Your task to perform on an android device: refresh tabs in the chrome app Image 0: 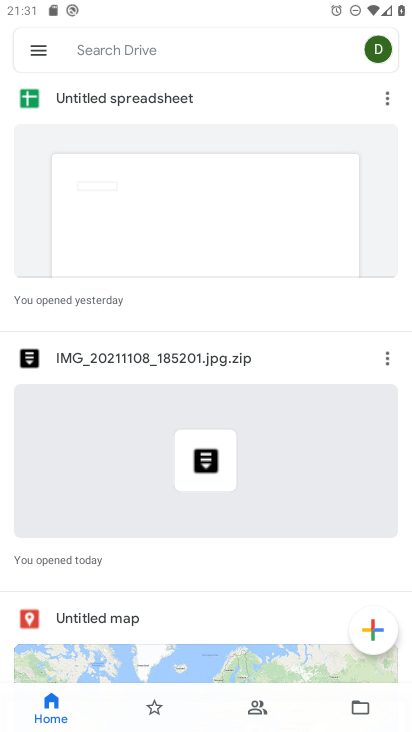
Step 0: press home button
Your task to perform on an android device: refresh tabs in the chrome app Image 1: 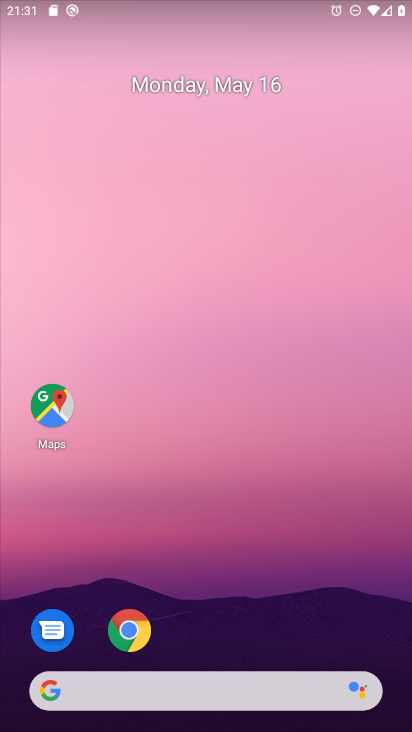
Step 1: click (124, 632)
Your task to perform on an android device: refresh tabs in the chrome app Image 2: 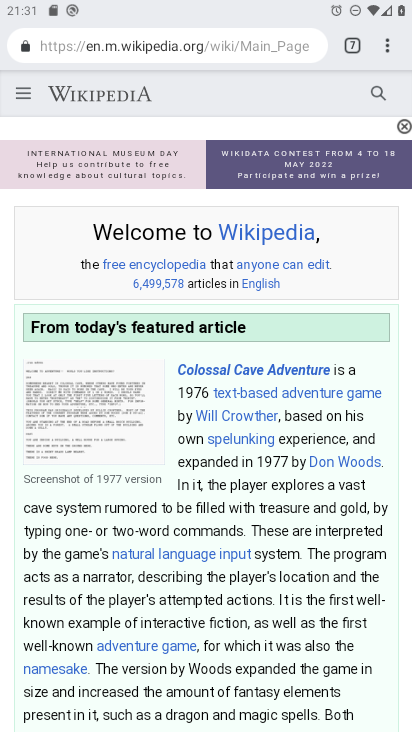
Step 2: click (391, 50)
Your task to perform on an android device: refresh tabs in the chrome app Image 3: 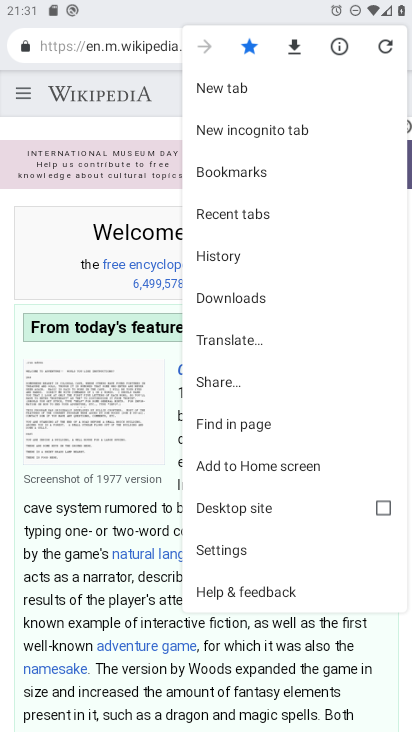
Step 3: click (379, 41)
Your task to perform on an android device: refresh tabs in the chrome app Image 4: 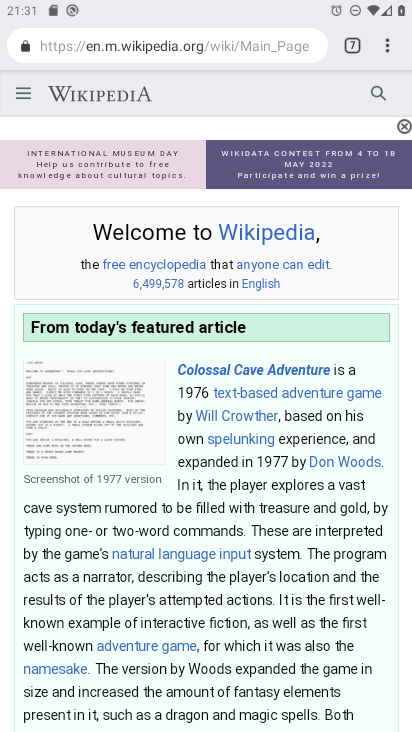
Step 4: task complete